Your task to perform on an android device: turn on showing notifications on the lock screen Image 0: 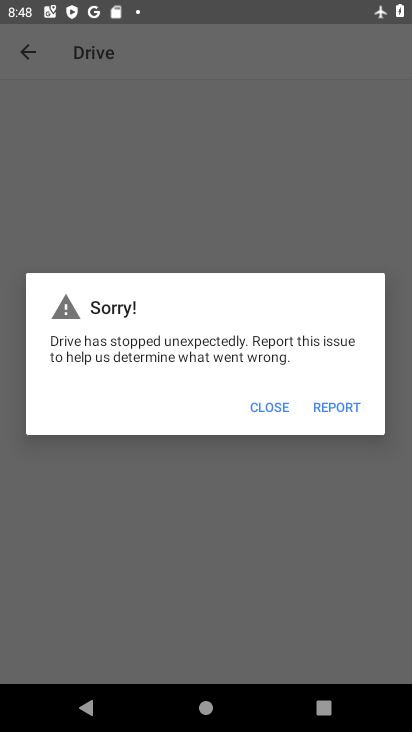
Step 0: press home button
Your task to perform on an android device: turn on showing notifications on the lock screen Image 1: 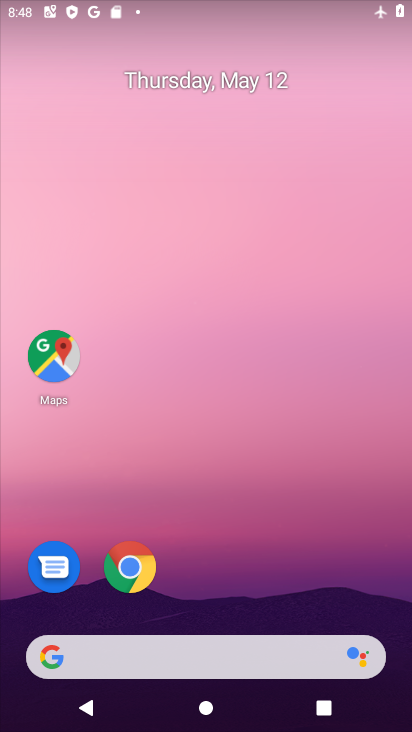
Step 1: drag from (176, 687) to (211, 253)
Your task to perform on an android device: turn on showing notifications on the lock screen Image 2: 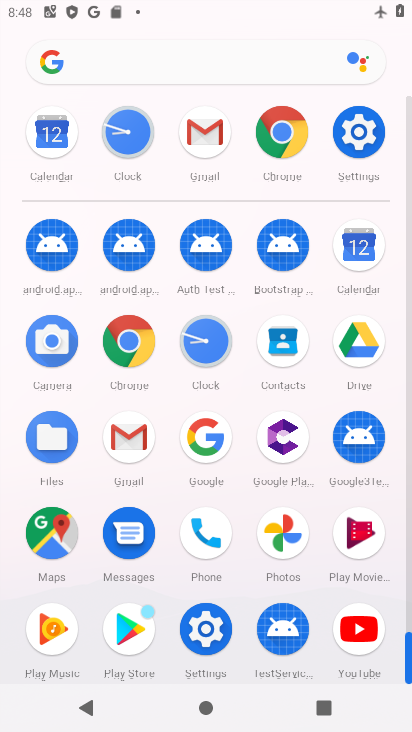
Step 2: click (360, 150)
Your task to perform on an android device: turn on showing notifications on the lock screen Image 3: 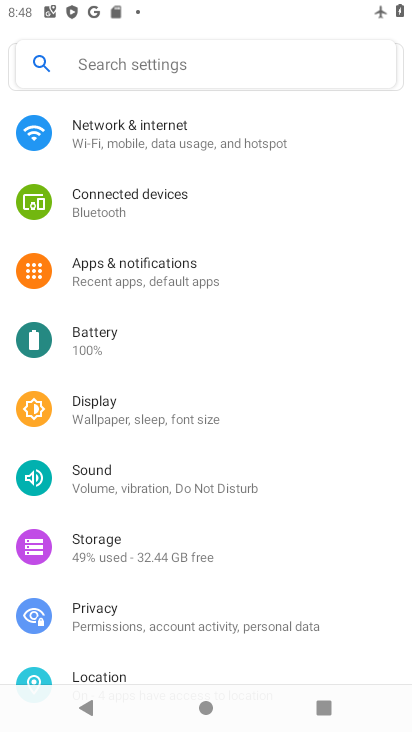
Step 3: click (173, 266)
Your task to perform on an android device: turn on showing notifications on the lock screen Image 4: 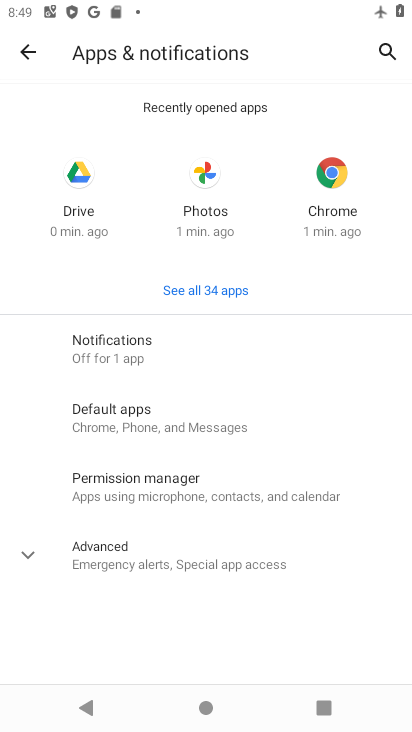
Step 4: click (184, 357)
Your task to perform on an android device: turn on showing notifications on the lock screen Image 5: 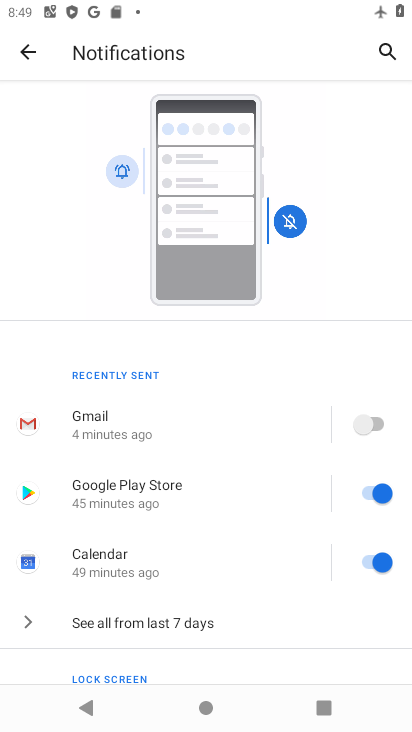
Step 5: drag from (213, 581) to (304, 150)
Your task to perform on an android device: turn on showing notifications on the lock screen Image 6: 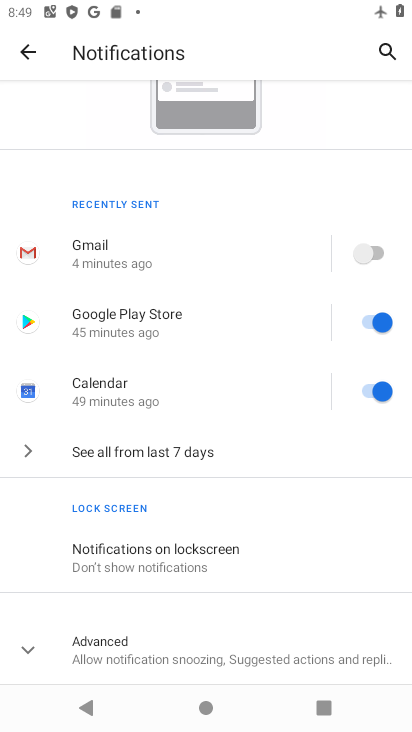
Step 6: click (225, 567)
Your task to perform on an android device: turn on showing notifications on the lock screen Image 7: 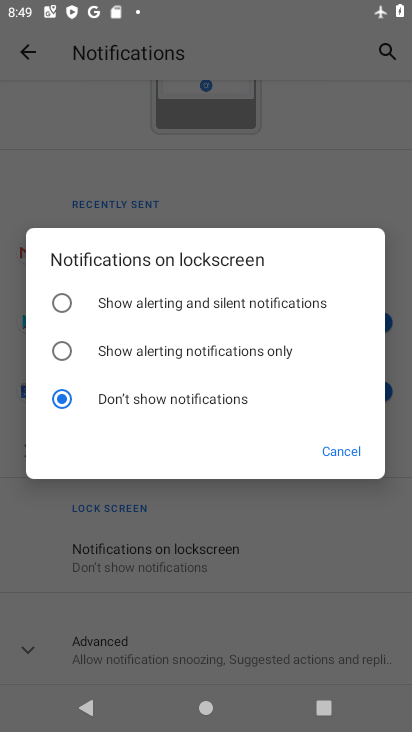
Step 7: click (59, 308)
Your task to perform on an android device: turn on showing notifications on the lock screen Image 8: 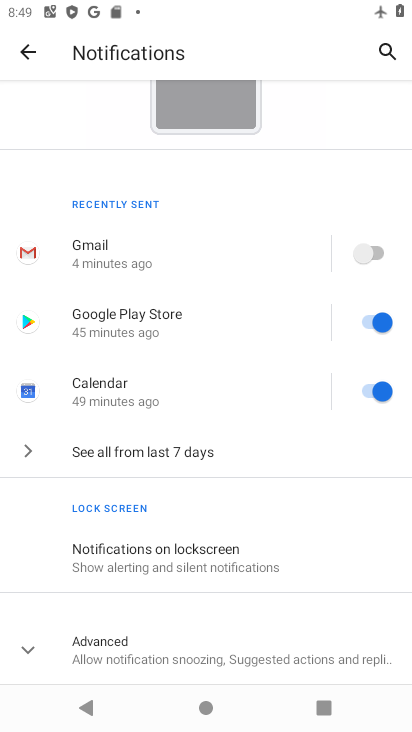
Step 8: task complete